Your task to perform on an android device: find snoozed emails in the gmail app Image 0: 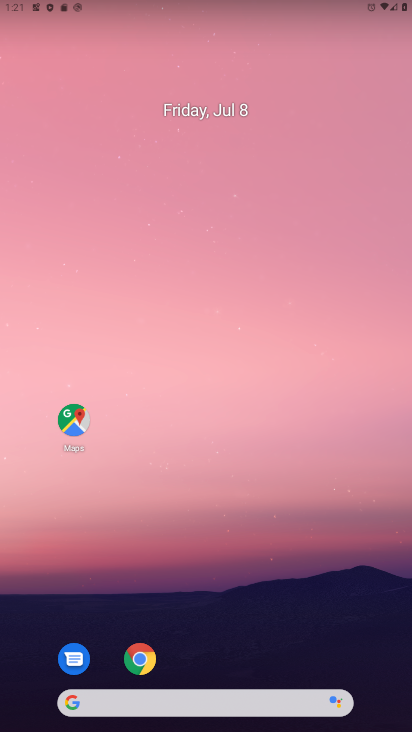
Step 0: drag from (212, 602) to (184, 94)
Your task to perform on an android device: find snoozed emails in the gmail app Image 1: 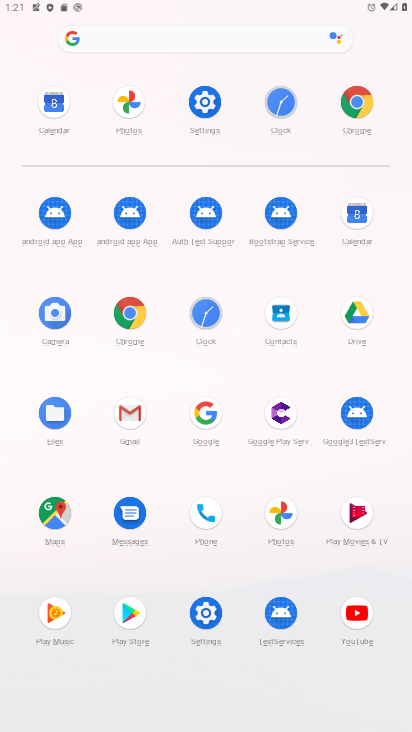
Step 1: click (131, 416)
Your task to perform on an android device: find snoozed emails in the gmail app Image 2: 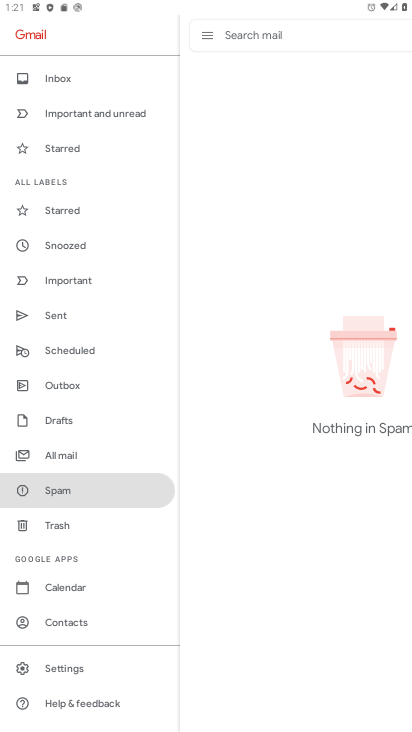
Step 2: click (69, 242)
Your task to perform on an android device: find snoozed emails in the gmail app Image 3: 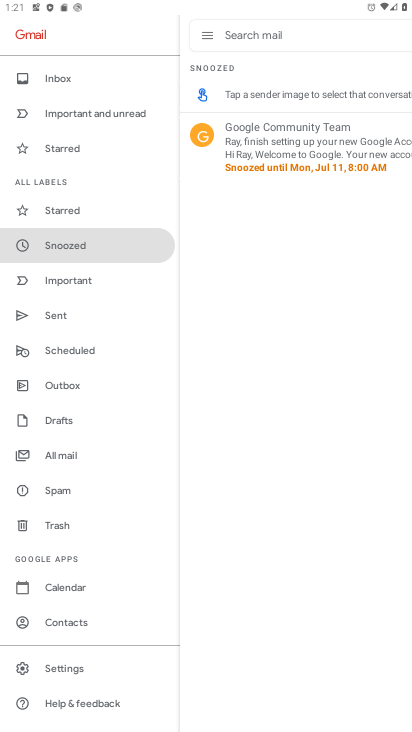
Step 3: task complete